Your task to perform on an android device: Open Google Image 0: 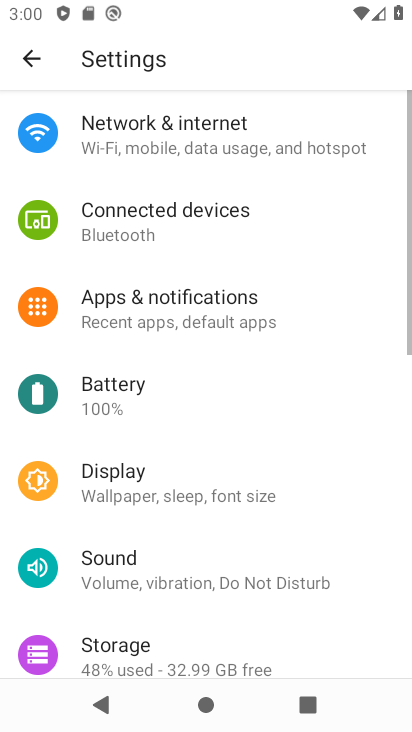
Step 0: press home button
Your task to perform on an android device: Open Google Image 1: 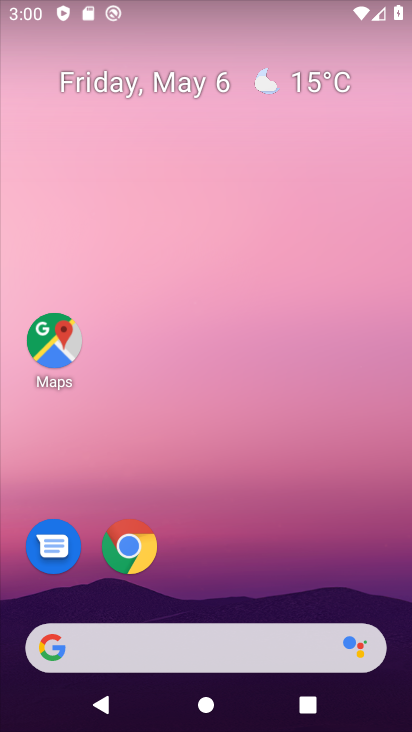
Step 1: drag from (223, 538) to (186, 87)
Your task to perform on an android device: Open Google Image 2: 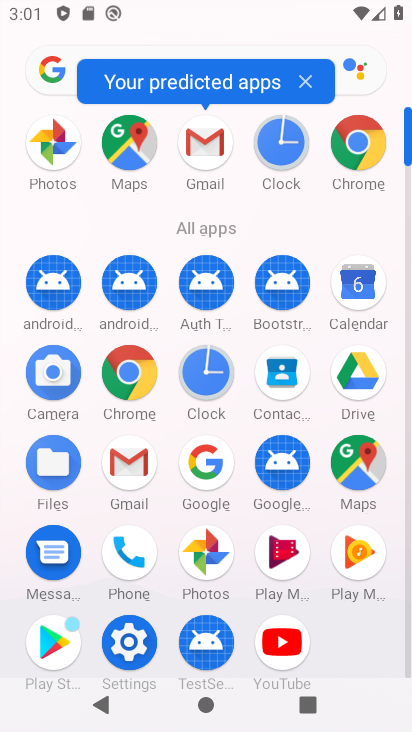
Step 2: click (212, 473)
Your task to perform on an android device: Open Google Image 3: 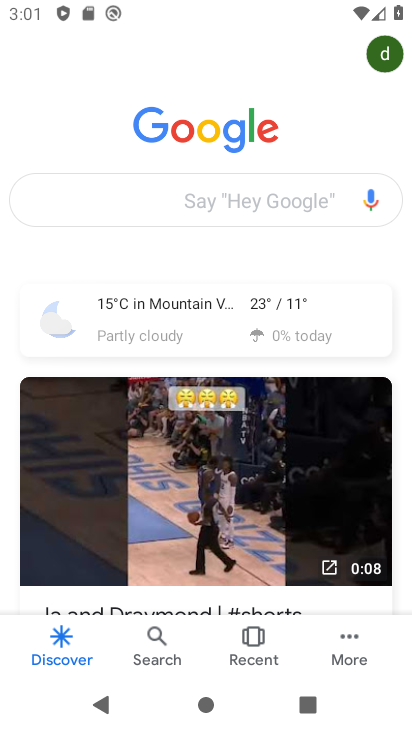
Step 3: task complete